Your task to perform on an android device: install app "Adobe Express: Graphic Design" Image 0: 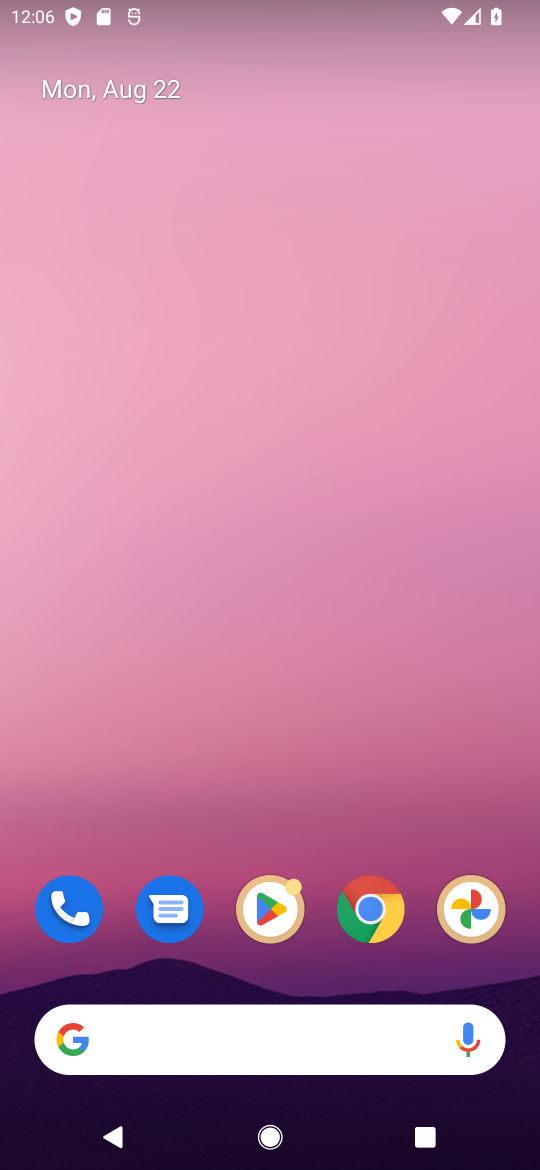
Step 0: click (266, 913)
Your task to perform on an android device: install app "Adobe Express: Graphic Design" Image 1: 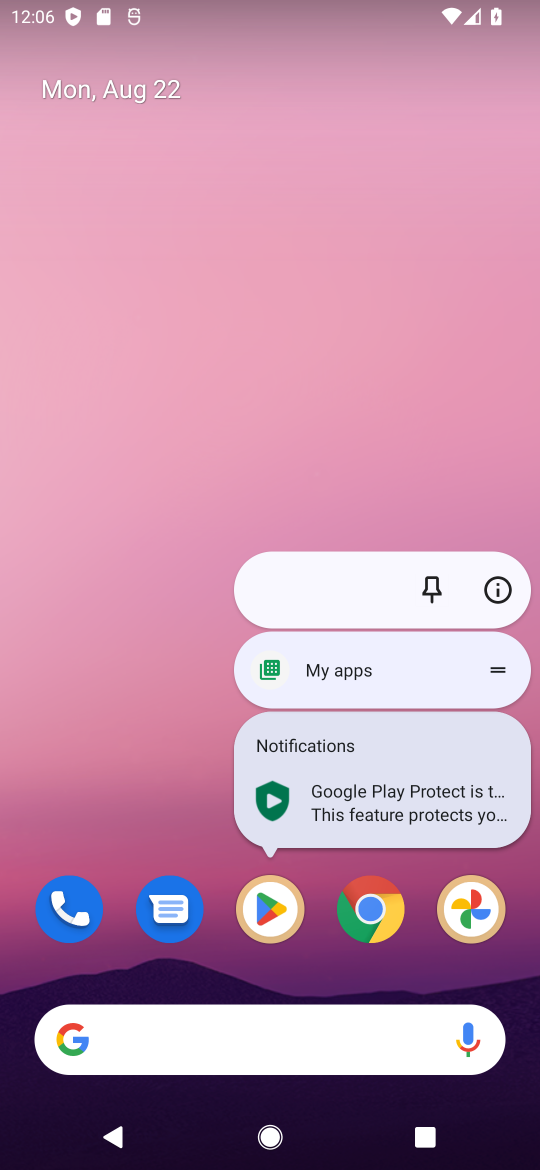
Step 1: click (276, 929)
Your task to perform on an android device: install app "Adobe Express: Graphic Design" Image 2: 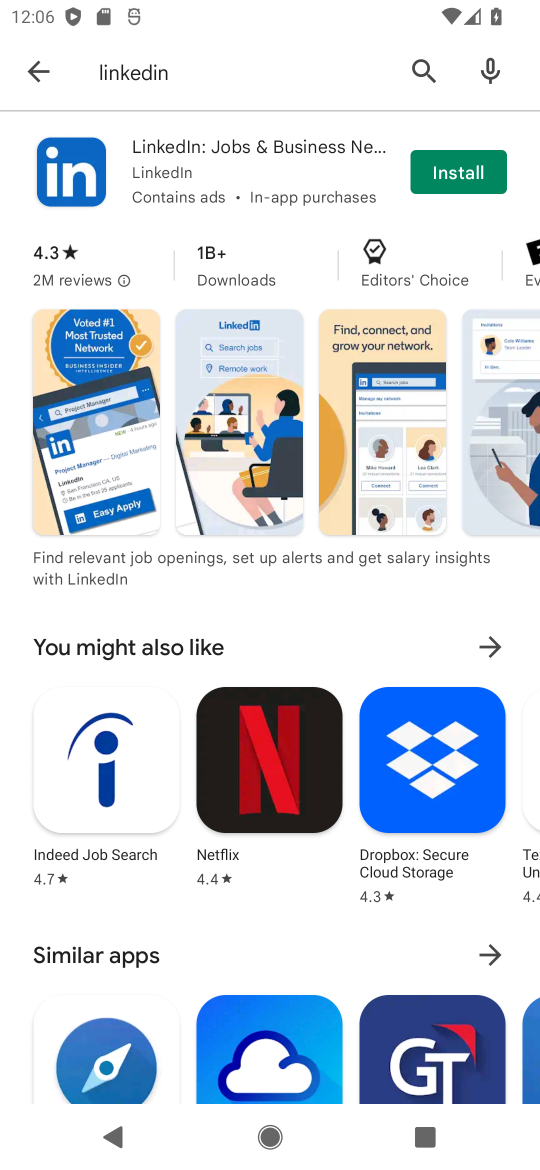
Step 2: click (434, 56)
Your task to perform on an android device: install app "Adobe Express: Graphic Design" Image 3: 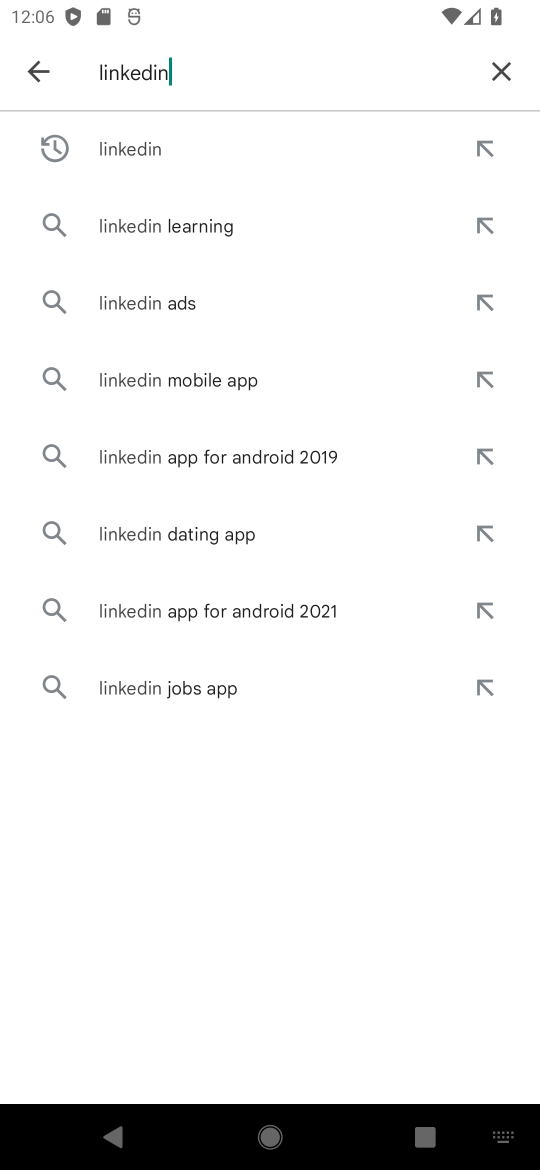
Step 3: click (492, 64)
Your task to perform on an android device: install app "Adobe Express: Graphic Design" Image 4: 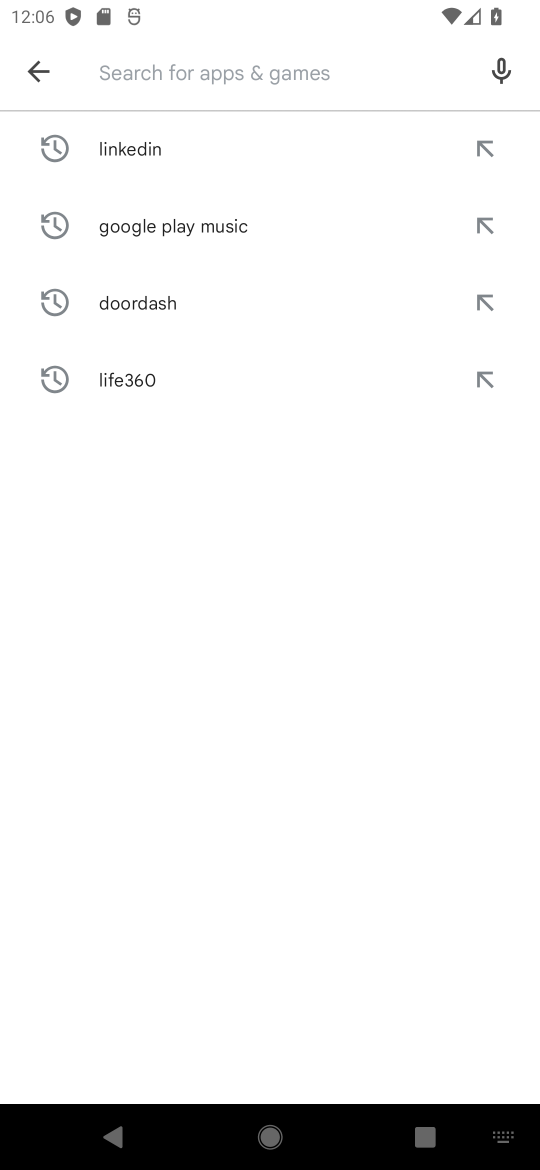
Step 4: type "adobe express"
Your task to perform on an android device: install app "Adobe Express: Graphic Design" Image 5: 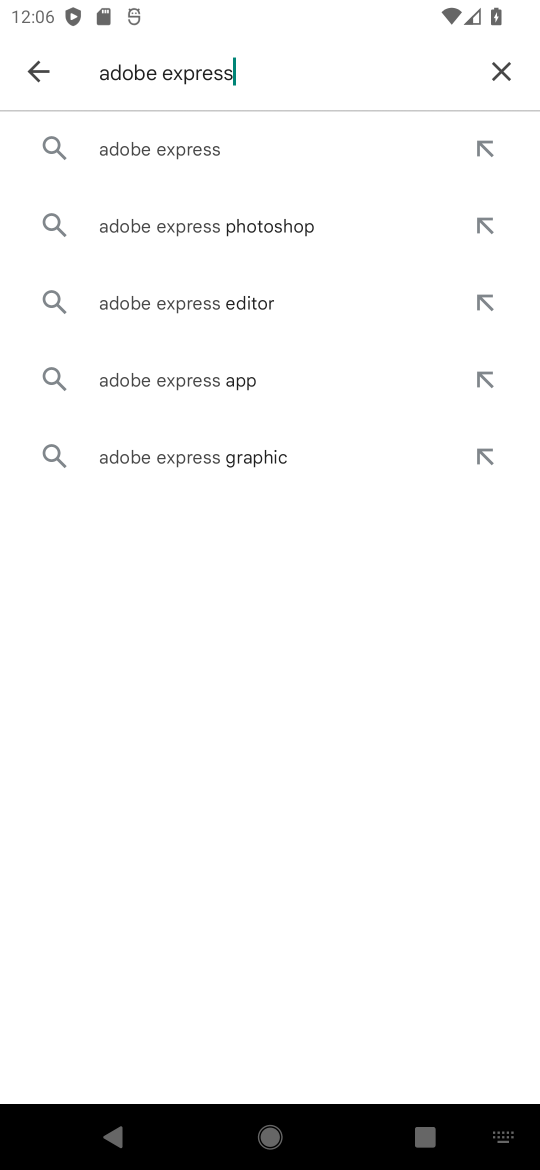
Step 5: click (204, 147)
Your task to perform on an android device: install app "Adobe Express: Graphic Design" Image 6: 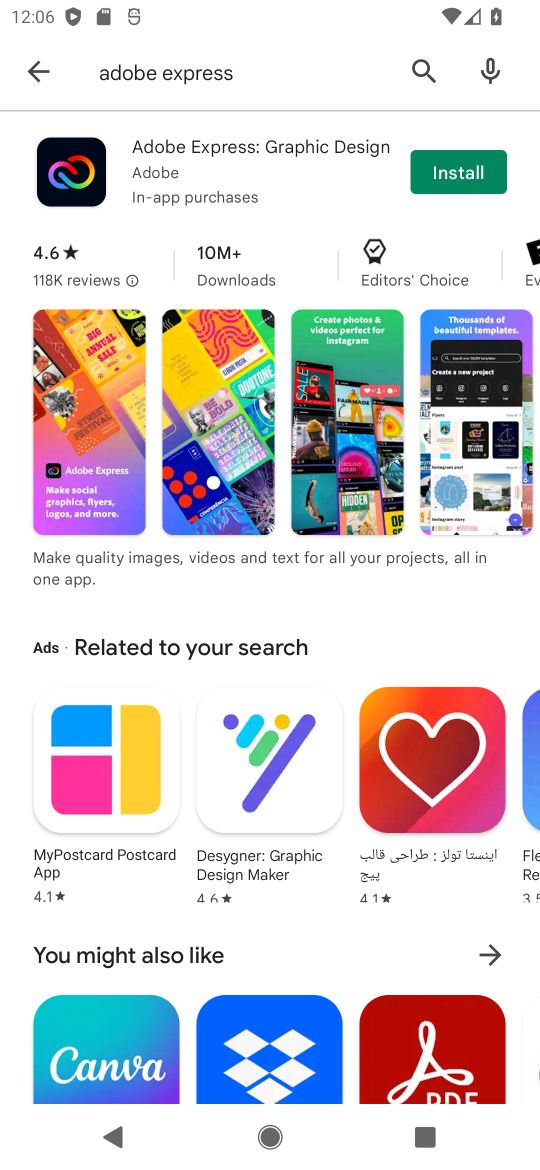
Step 6: click (439, 185)
Your task to perform on an android device: install app "Adobe Express: Graphic Design" Image 7: 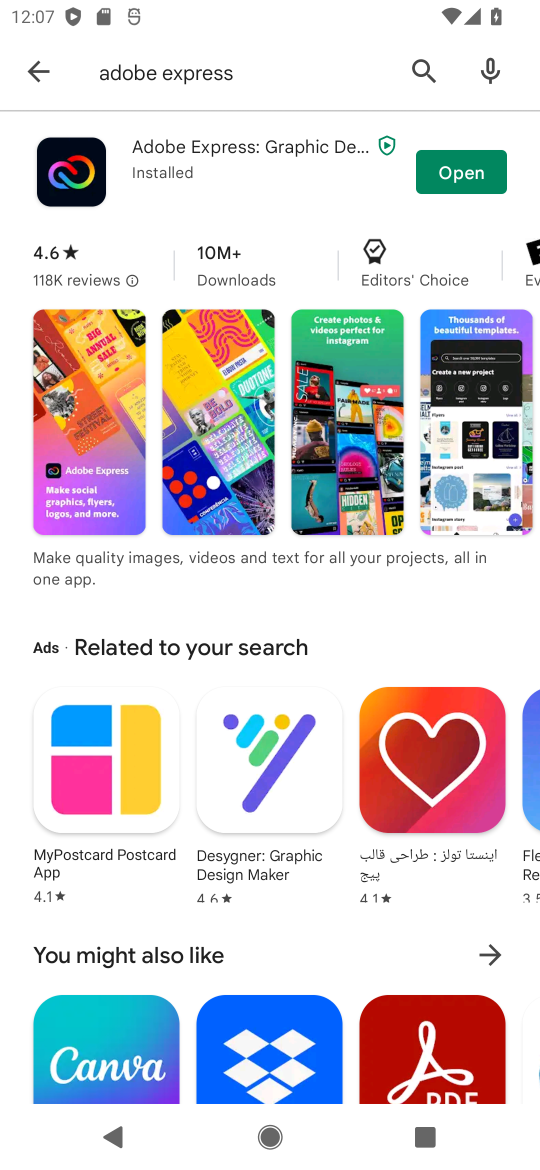
Step 7: click (464, 162)
Your task to perform on an android device: install app "Adobe Express: Graphic Design" Image 8: 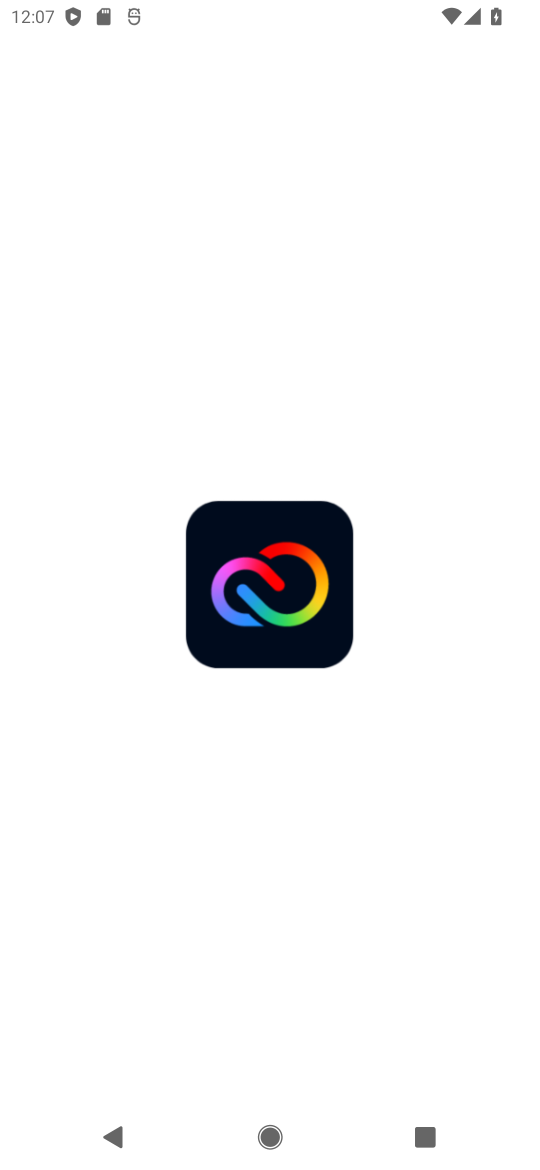
Step 8: task complete